Your task to perform on an android device: Go to notification settings Image 0: 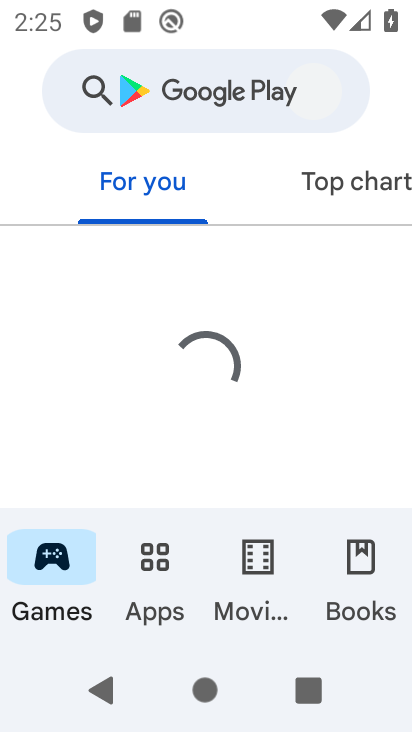
Step 0: press home button
Your task to perform on an android device: Go to notification settings Image 1: 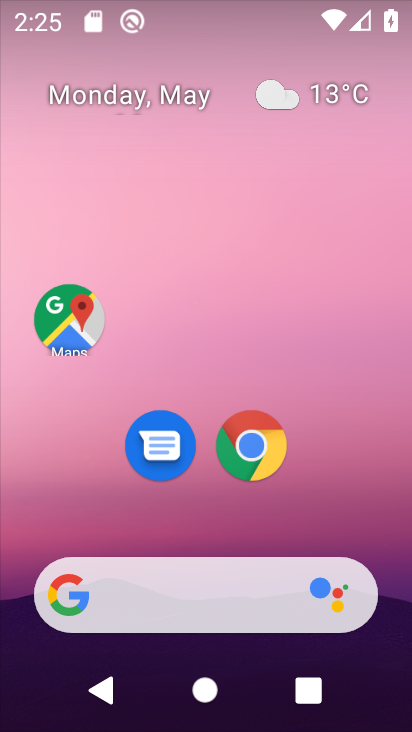
Step 1: drag from (126, 556) to (215, 110)
Your task to perform on an android device: Go to notification settings Image 2: 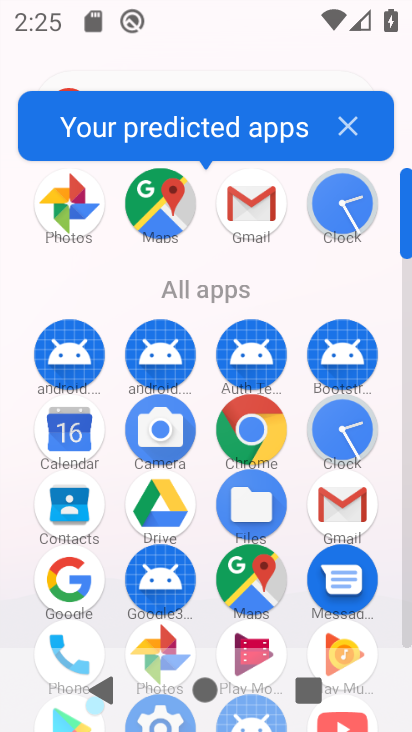
Step 2: drag from (214, 563) to (338, 216)
Your task to perform on an android device: Go to notification settings Image 3: 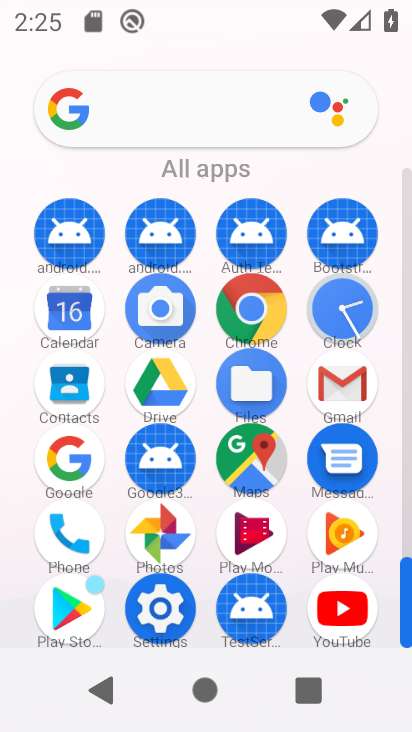
Step 3: click (158, 617)
Your task to perform on an android device: Go to notification settings Image 4: 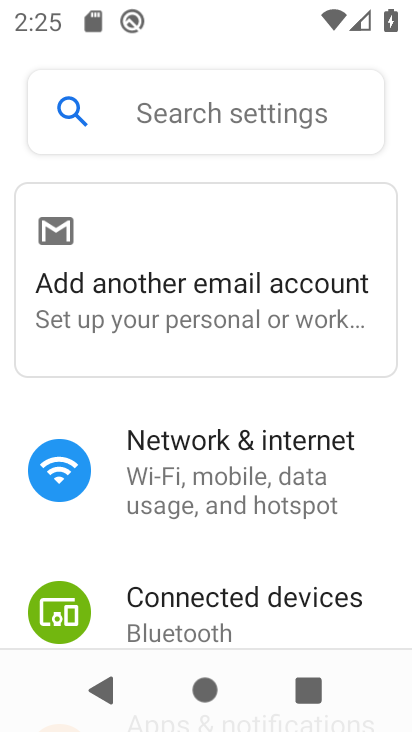
Step 4: drag from (242, 609) to (332, 340)
Your task to perform on an android device: Go to notification settings Image 5: 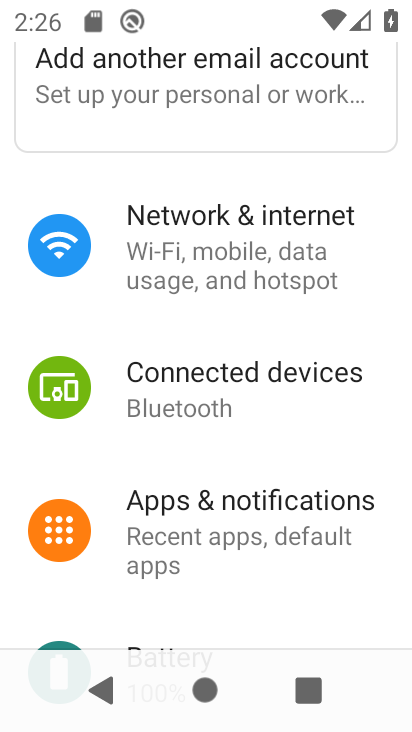
Step 5: drag from (186, 597) to (280, 350)
Your task to perform on an android device: Go to notification settings Image 6: 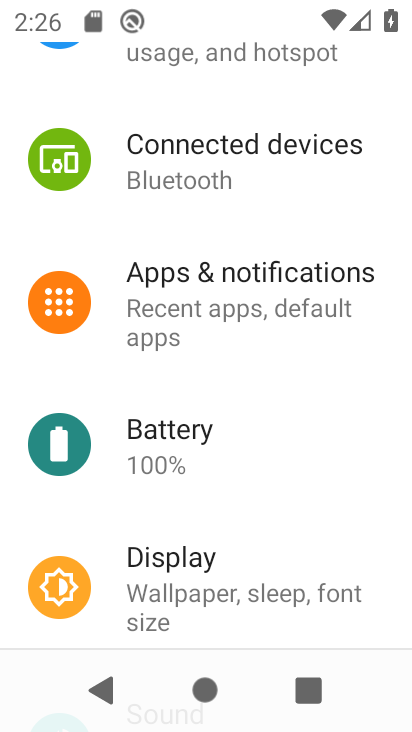
Step 6: drag from (256, 351) to (266, 681)
Your task to perform on an android device: Go to notification settings Image 7: 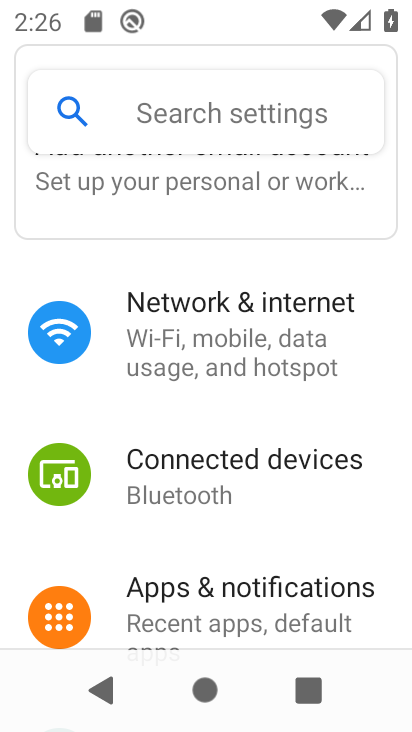
Step 7: drag from (234, 612) to (269, 491)
Your task to perform on an android device: Go to notification settings Image 8: 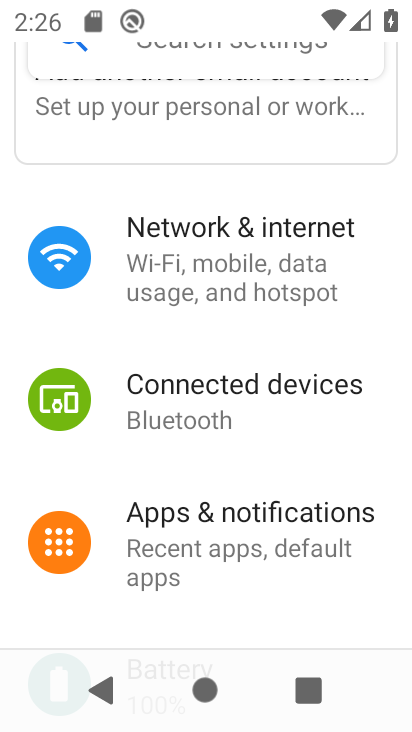
Step 8: click (259, 576)
Your task to perform on an android device: Go to notification settings Image 9: 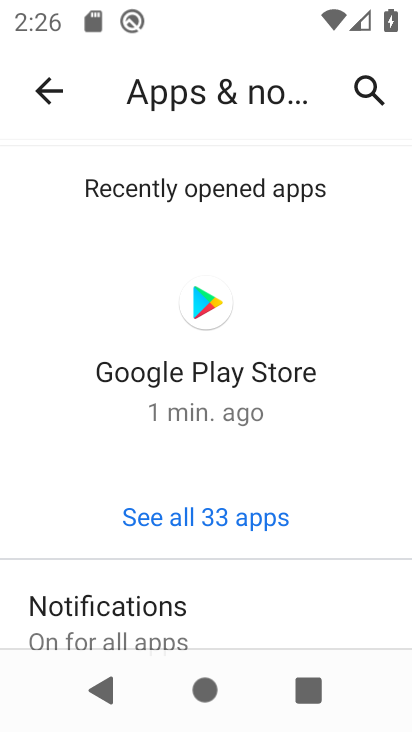
Step 9: task complete